Your task to perform on an android device: see tabs open on other devices in the chrome app Image 0: 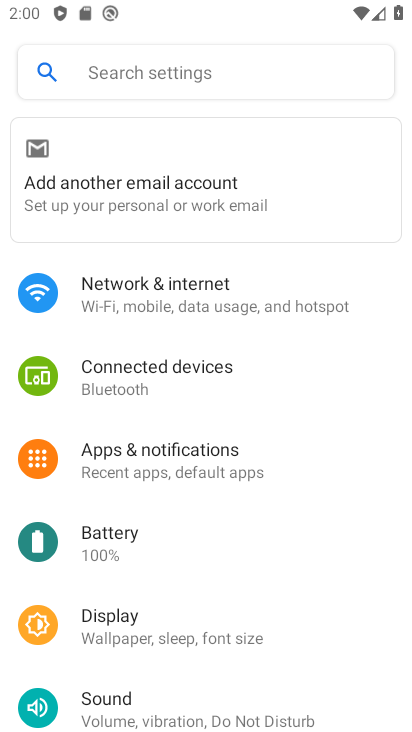
Step 0: press home button
Your task to perform on an android device: see tabs open on other devices in the chrome app Image 1: 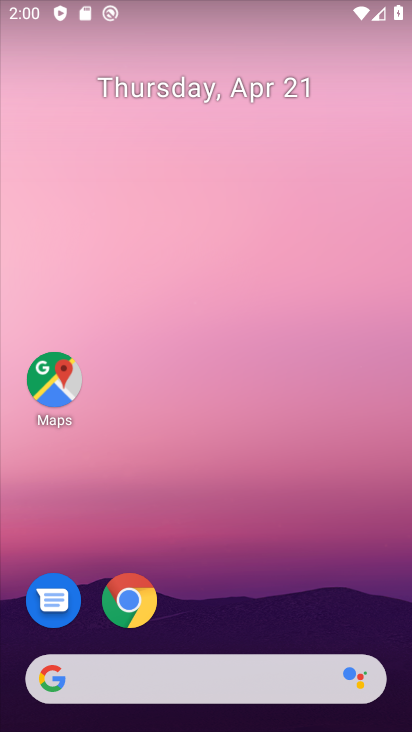
Step 1: click (136, 594)
Your task to perform on an android device: see tabs open on other devices in the chrome app Image 2: 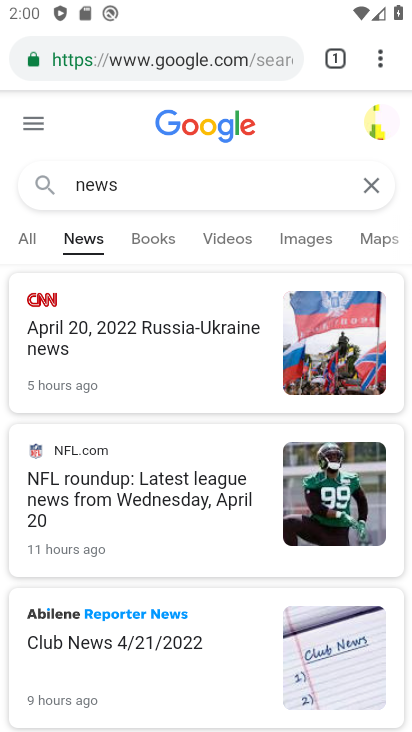
Step 2: click (380, 57)
Your task to perform on an android device: see tabs open on other devices in the chrome app Image 3: 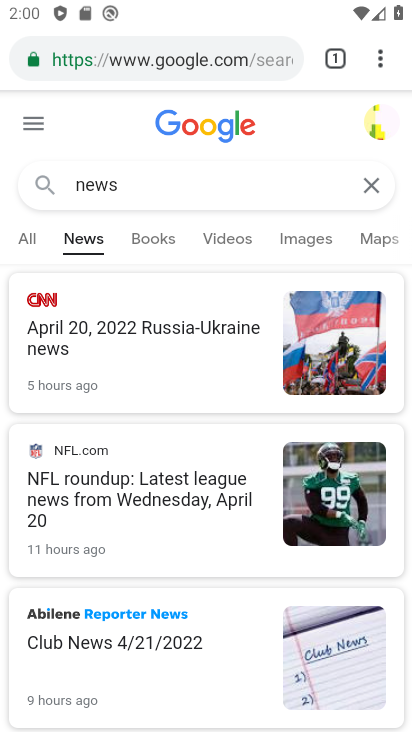
Step 3: task complete